Your task to perform on an android device: Open sound settings Image 0: 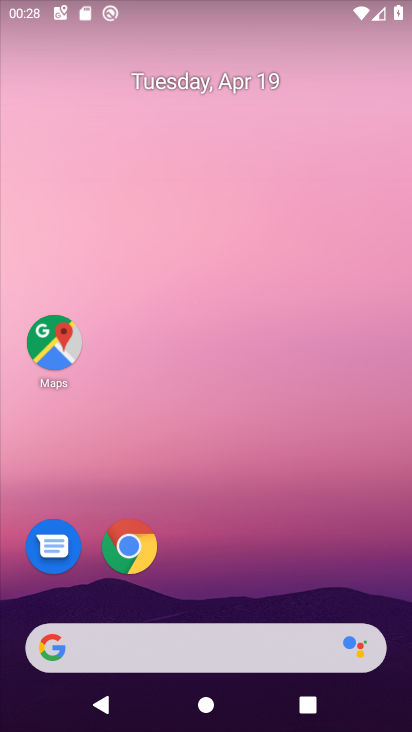
Step 0: drag from (236, 488) to (248, 27)
Your task to perform on an android device: Open sound settings Image 1: 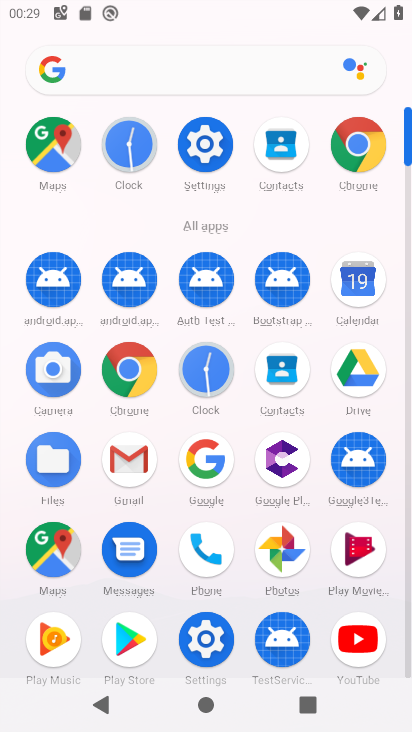
Step 1: click (201, 140)
Your task to perform on an android device: Open sound settings Image 2: 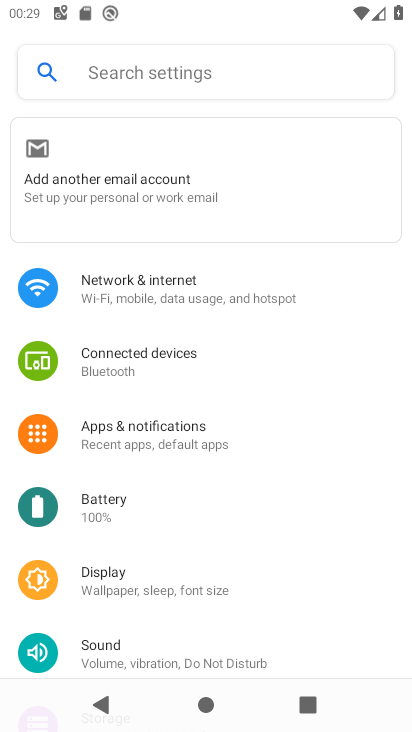
Step 2: drag from (225, 637) to (233, 212)
Your task to perform on an android device: Open sound settings Image 3: 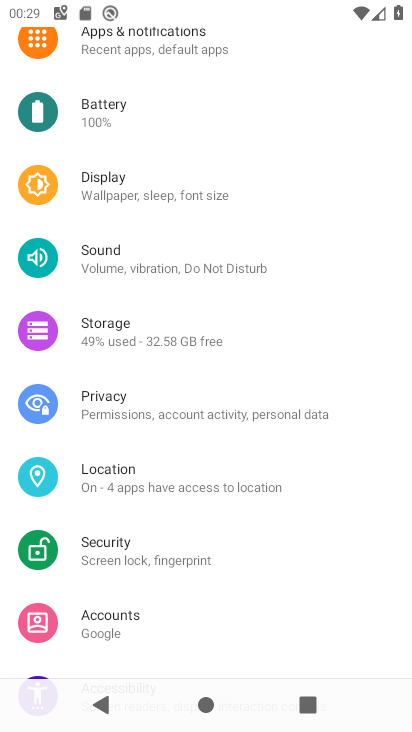
Step 3: click (139, 247)
Your task to perform on an android device: Open sound settings Image 4: 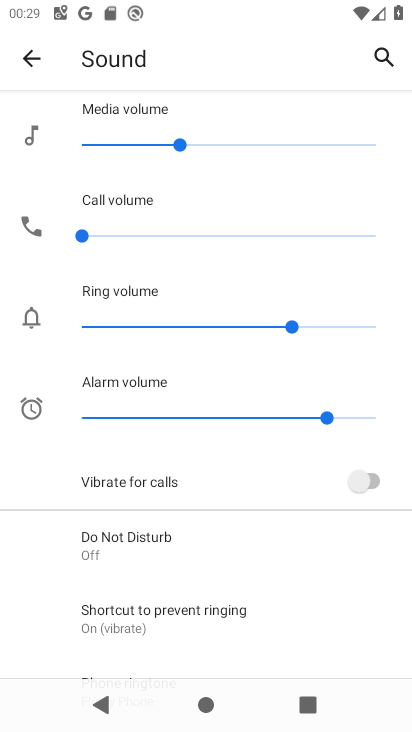
Step 4: drag from (230, 573) to (236, 160)
Your task to perform on an android device: Open sound settings Image 5: 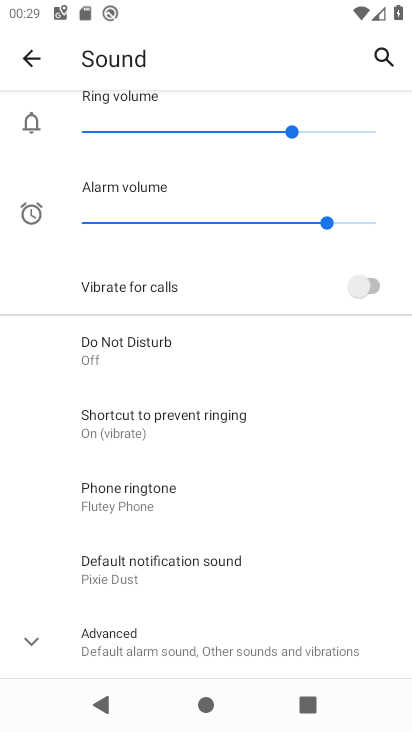
Step 5: click (29, 634)
Your task to perform on an android device: Open sound settings Image 6: 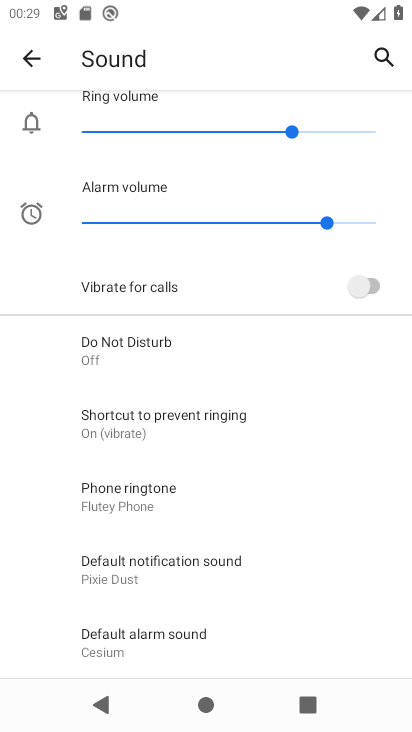
Step 6: task complete